Your task to perform on an android device: turn off sleep mode Image 0: 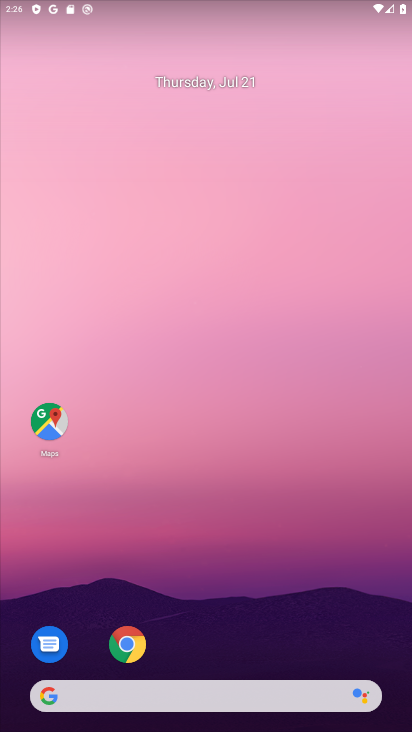
Step 0: drag from (268, 633) to (175, 211)
Your task to perform on an android device: turn off sleep mode Image 1: 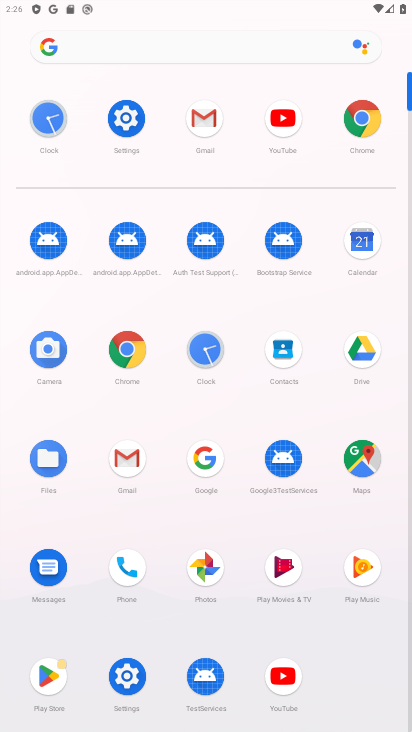
Step 1: click (116, 114)
Your task to perform on an android device: turn off sleep mode Image 2: 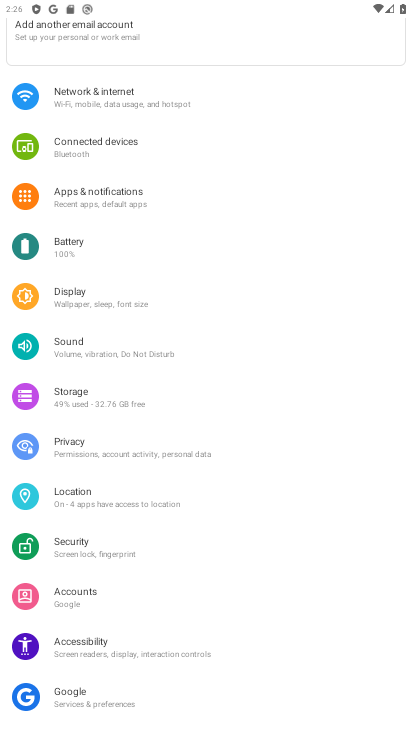
Step 2: click (126, 309)
Your task to perform on an android device: turn off sleep mode Image 3: 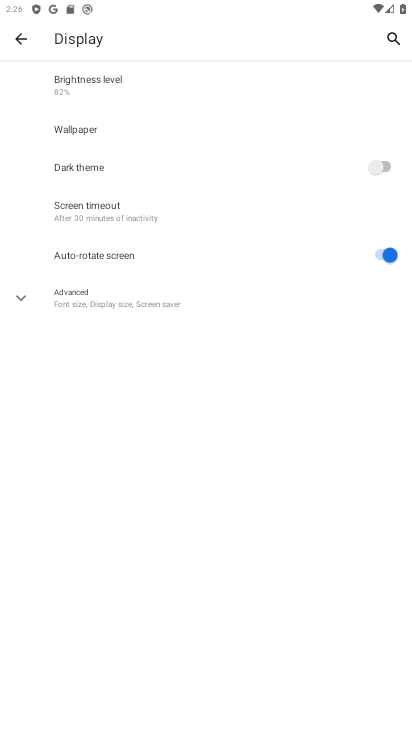
Step 3: click (138, 295)
Your task to perform on an android device: turn off sleep mode Image 4: 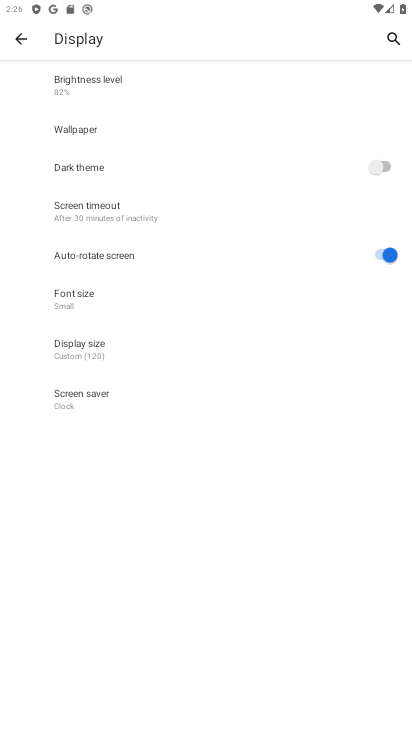
Step 4: task complete